Your task to perform on an android device: Search for flights from Barcelona to Mexico city Image 0: 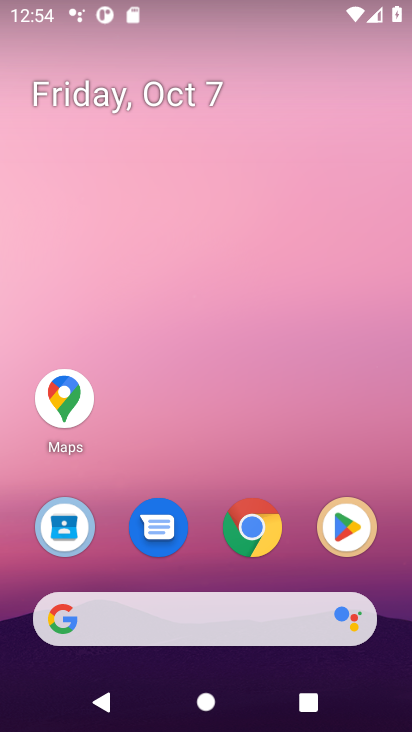
Step 0: click (258, 551)
Your task to perform on an android device: Search for flights from Barcelona to Mexico city Image 1: 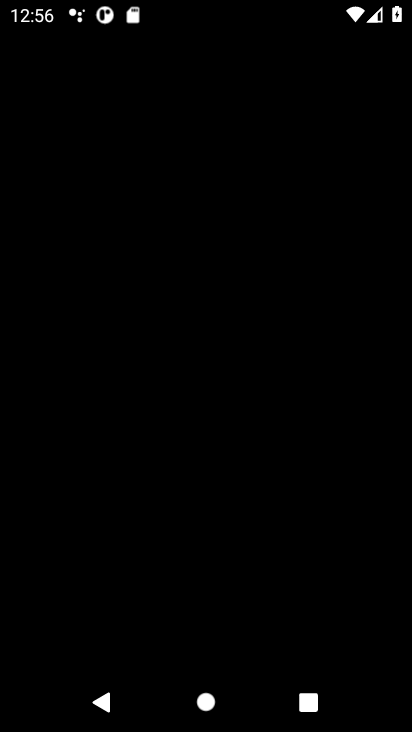
Step 1: task complete